Your task to perform on an android device: change the clock display to digital Image 0: 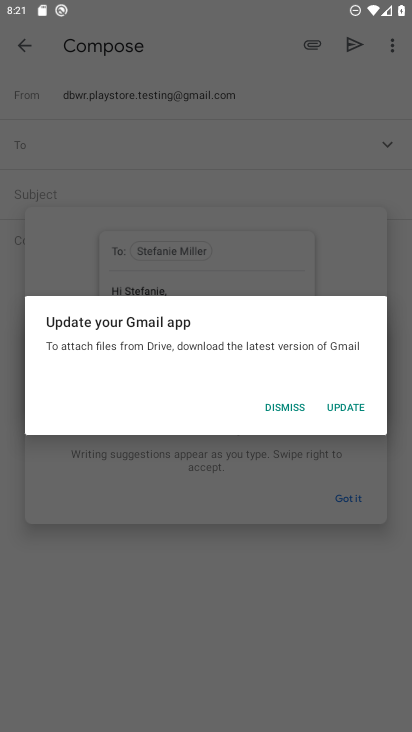
Step 0: press home button
Your task to perform on an android device: change the clock display to digital Image 1: 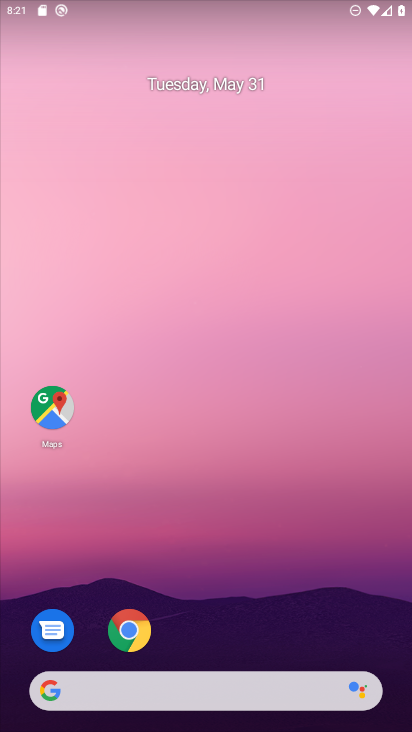
Step 1: drag from (301, 629) to (222, 13)
Your task to perform on an android device: change the clock display to digital Image 2: 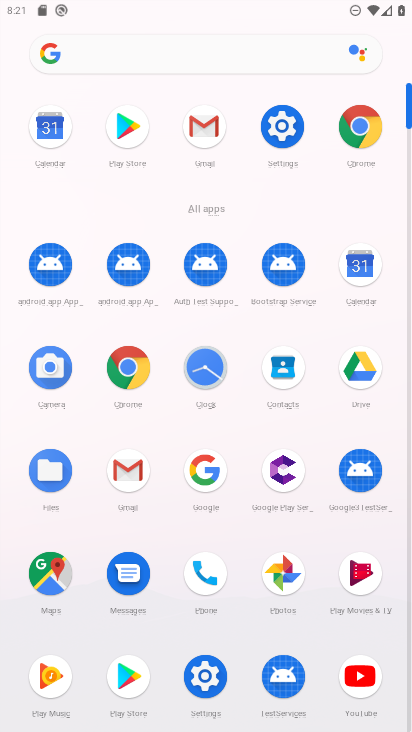
Step 2: click (204, 370)
Your task to perform on an android device: change the clock display to digital Image 3: 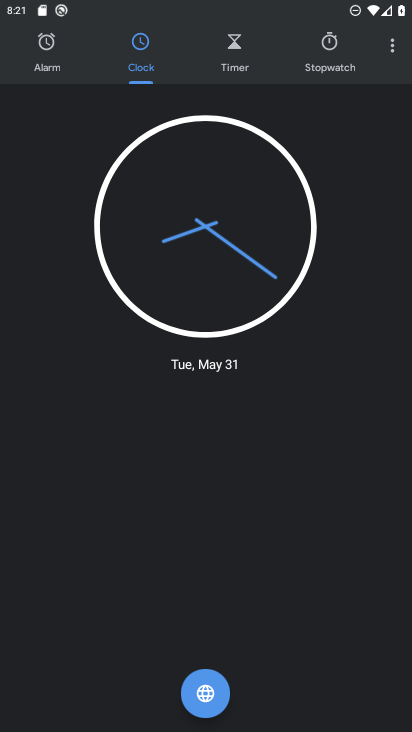
Step 3: click (399, 46)
Your task to perform on an android device: change the clock display to digital Image 4: 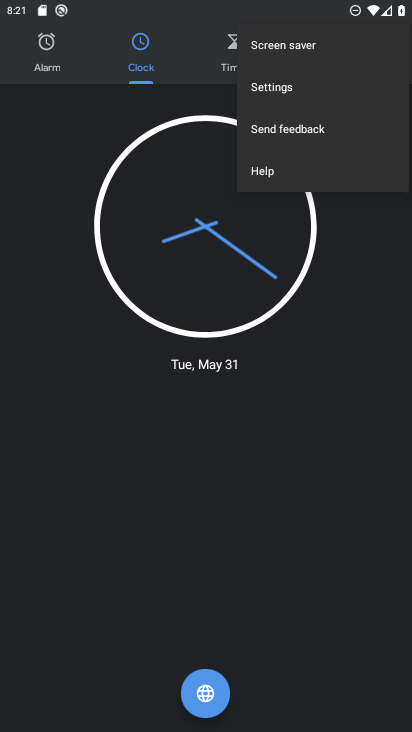
Step 4: click (262, 92)
Your task to perform on an android device: change the clock display to digital Image 5: 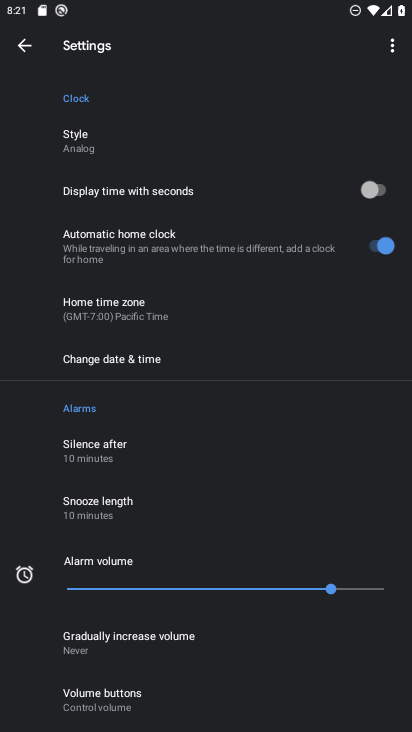
Step 5: click (143, 146)
Your task to perform on an android device: change the clock display to digital Image 6: 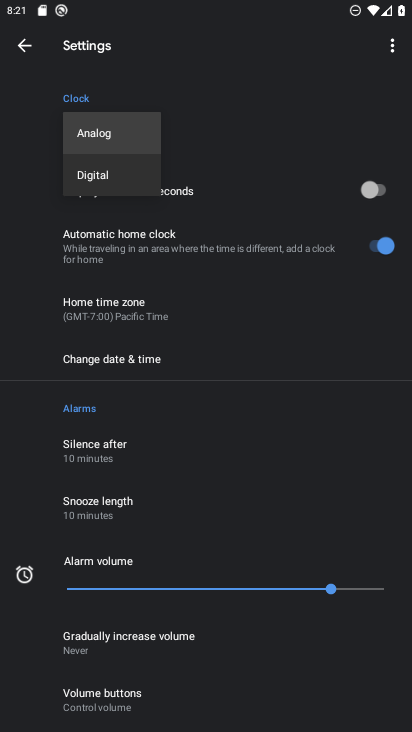
Step 6: click (108, 177)
Your task to perform on an android device: change the clock display to digital Image 7: 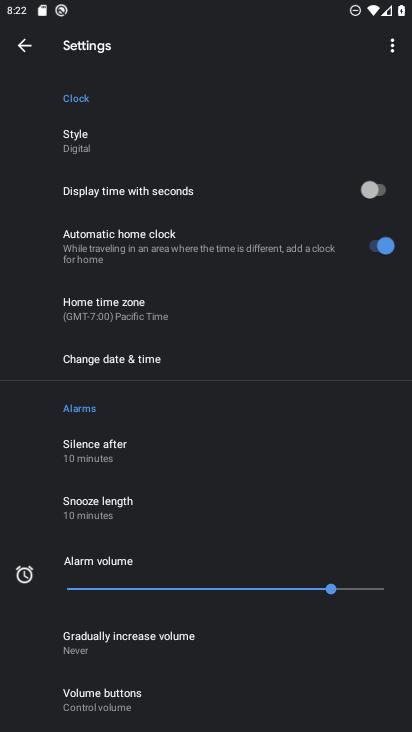
Step 7: task complete